Your task to perform on an android device: allow cookies in the chrome app Image 0: 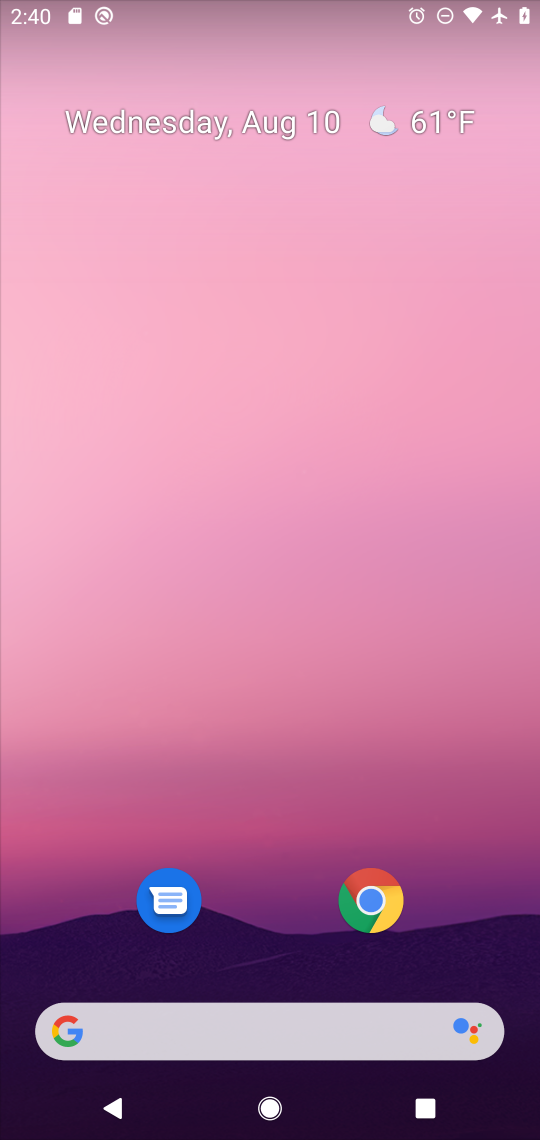
Step 0: click (376, 896)
Your task to perform on an android device: allow cookies in the chrome app Image 1: 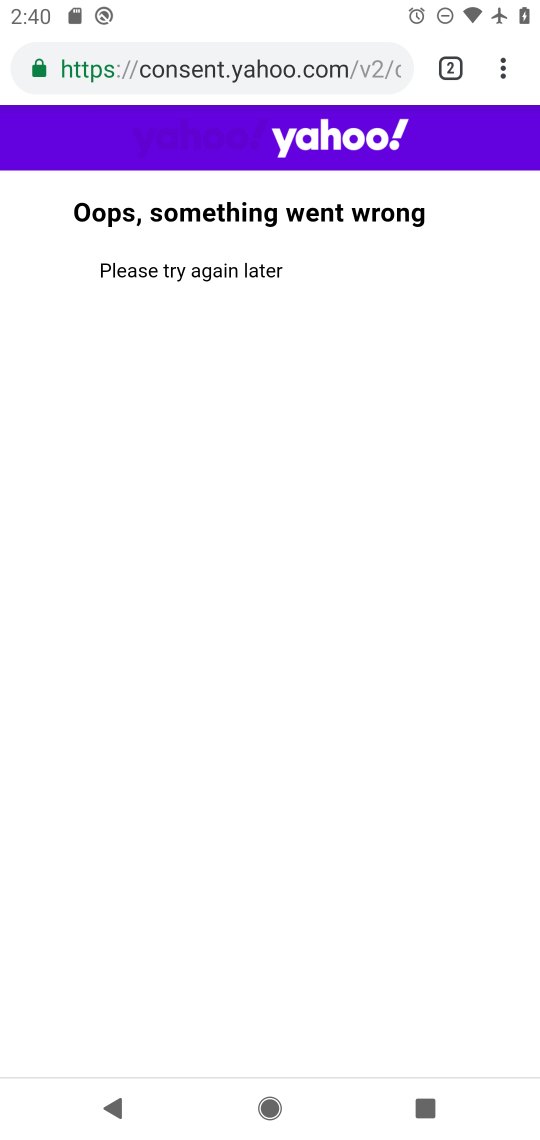
Step 1: click (498, 70)
Your task to perform on an android device: allow cookies in the chrome app Image 2: 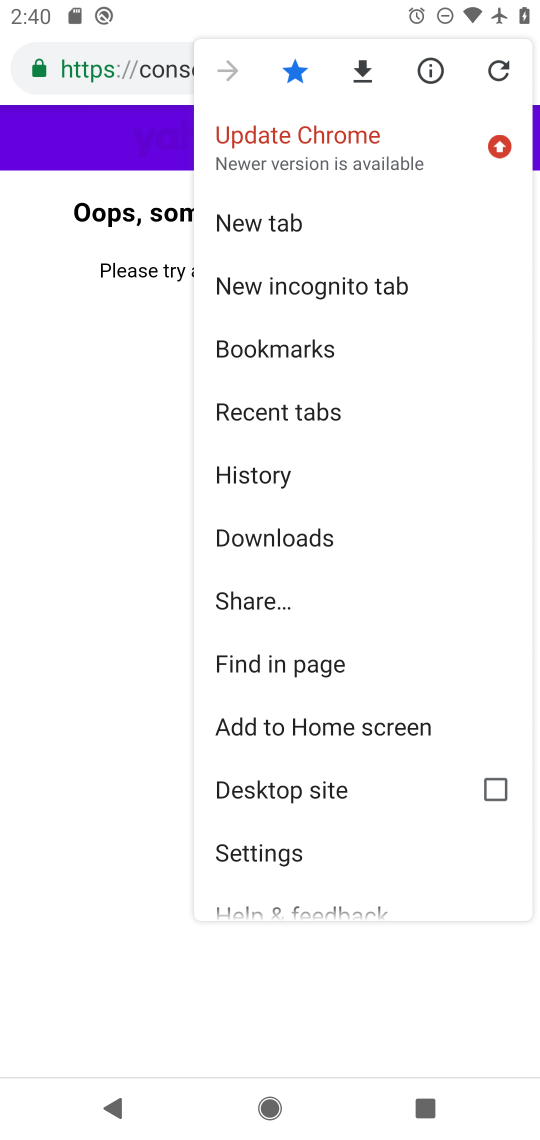
Step 2: click (353, 850)
Your task to perform on an android device: allow cookies in the chrome app Image 3: 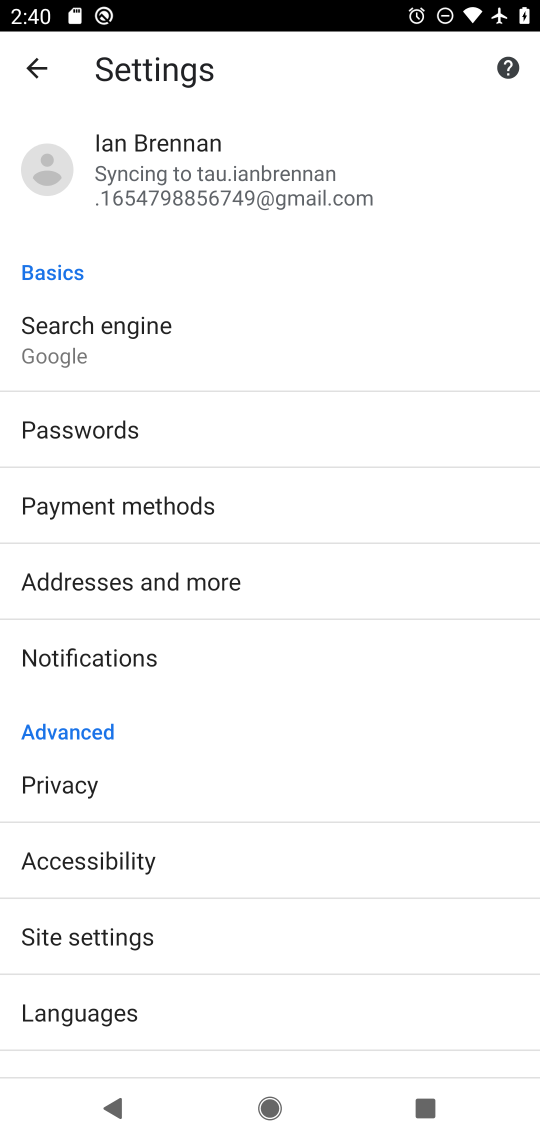
Step 3: click (375, 920)
Your task to perform on an android device: allow cookies in the chrome app Image 4: 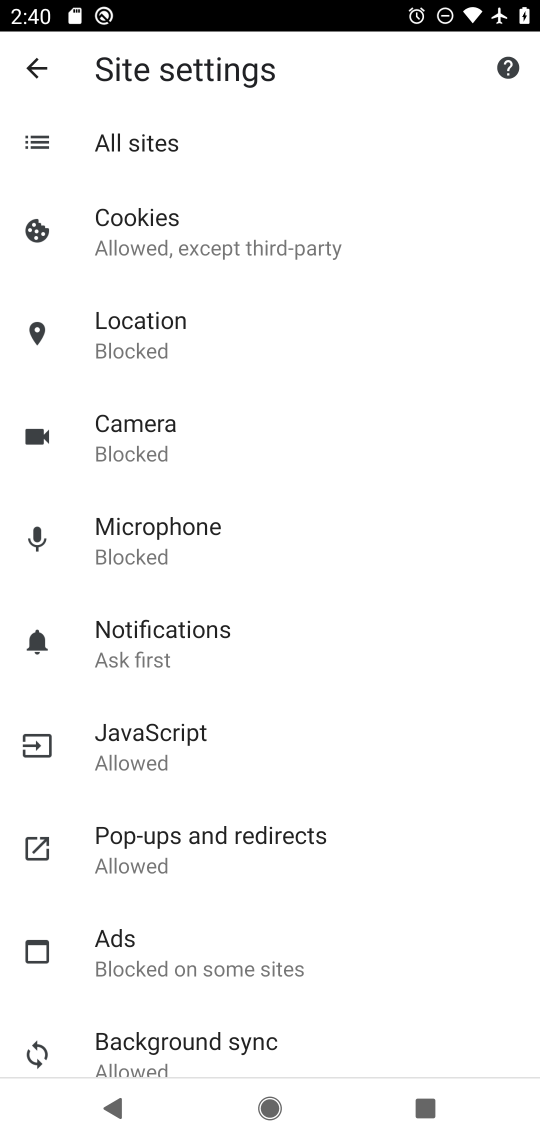
Step 4: click (211, 241)
Your task to perform on an android device: allow cookies in the chrome app Image 5: 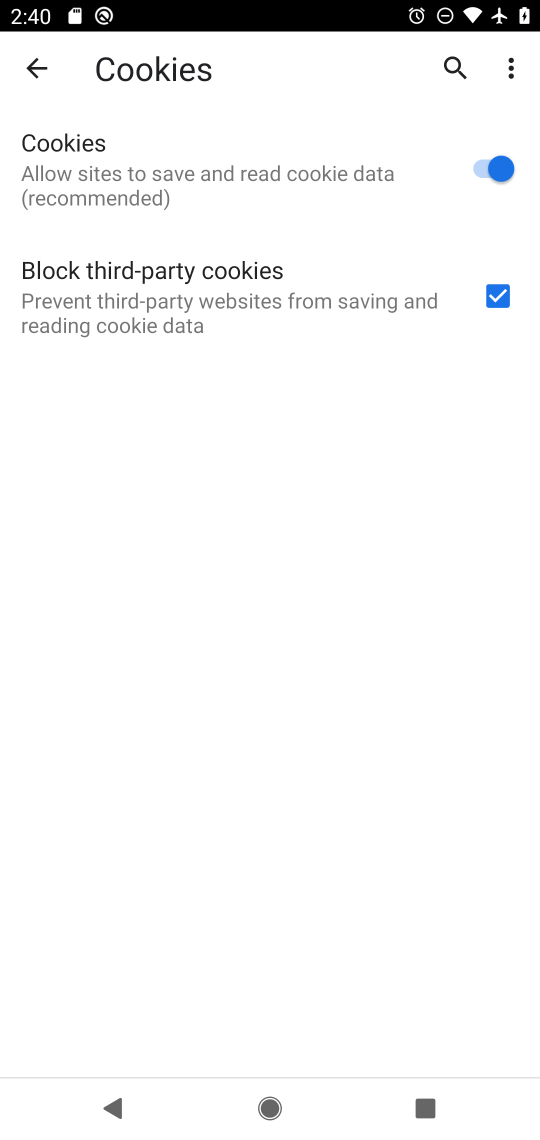
Step 5: task complete